Your task to perform on an android device: check the backup settings in the google photos Image 0: 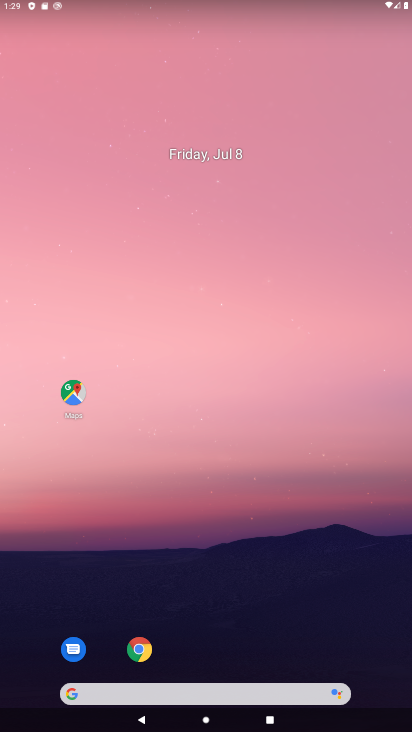
Step 0: drag from (392, 627) to (210, 0)
Your task to perform on an android device: check the backup settings in the google photos Image 1: 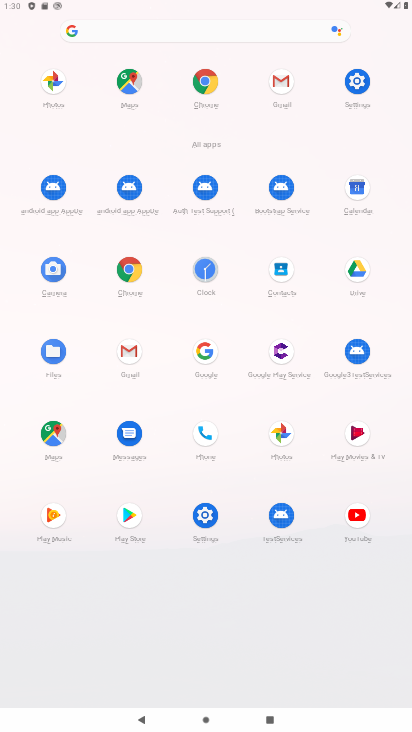
Step 1: click (280, 431)
Your task to perform on an android device: check the backup settings in the google photos Image 2: 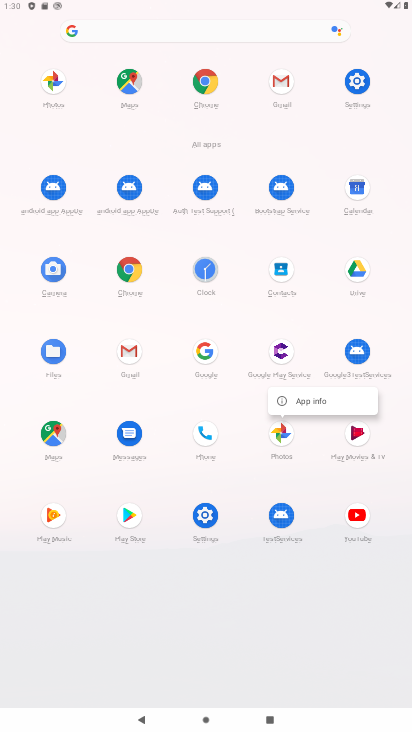
Step 2: click (278, 433)
Your task to perform on an android device: check the backup settings in the google photos Image 3: 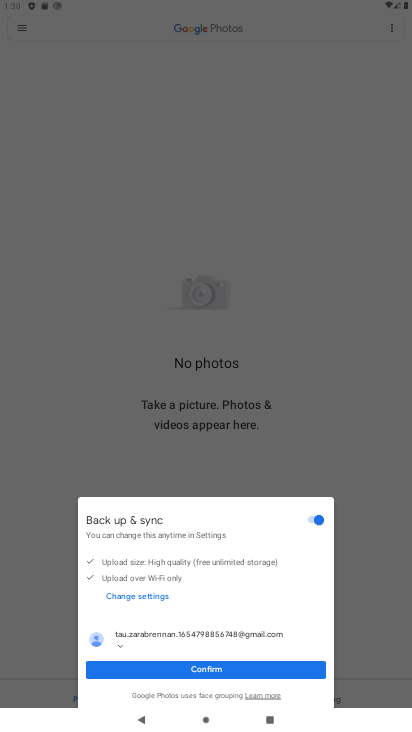
Step 3: click (217, 668)
Your task to perform on an android device: check the backup settings in the google photos Image 4: 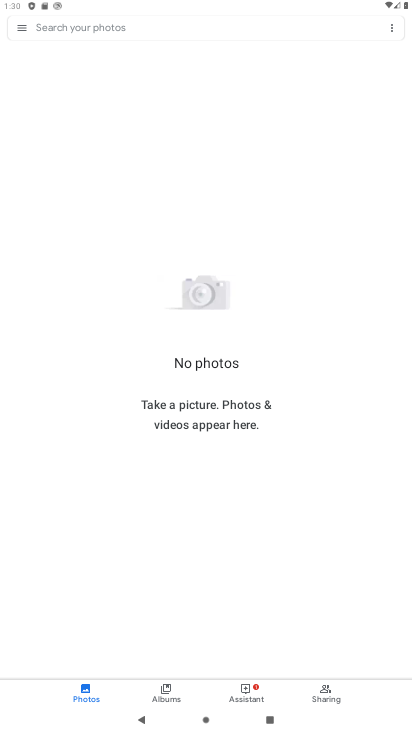
Step 4: click (19, 21)
Your task to perform on an android device: check the backup settings in the google photos Image 5: 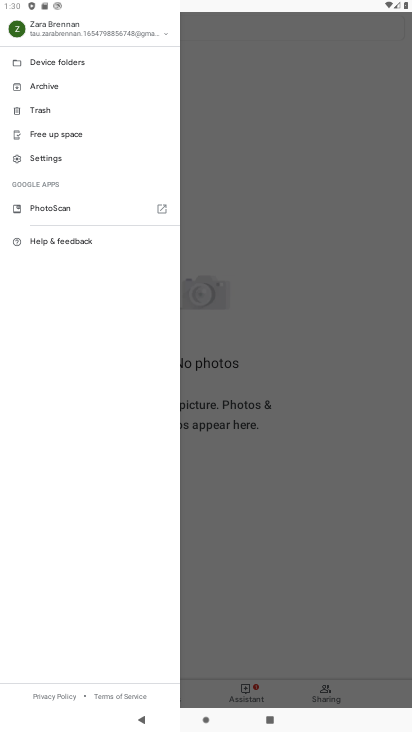
Step 5: click (52, 164)
Your task to perform on an android device: check the backup settings in the google photos Image 6: 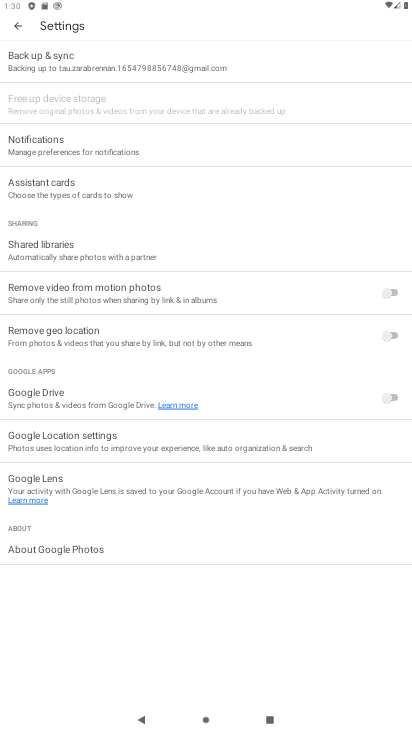
Step 6: click (167, 65)
Your task to perform on an android device: check the backup settings in the google photos Image 7: 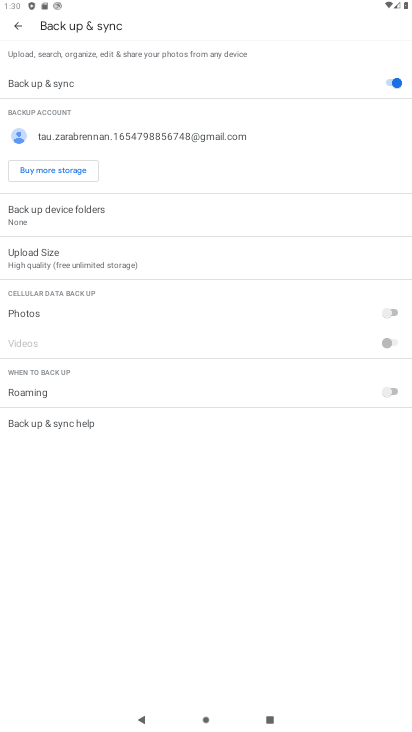
Step 7: task complete